Your task to perform on an android device: turn on airplane mode Image 0: 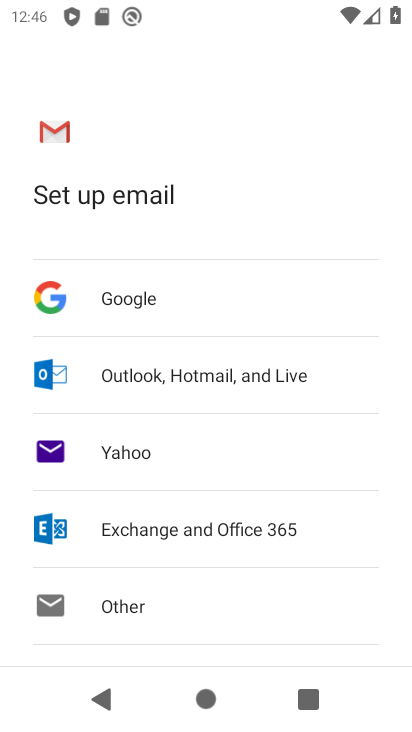
Step 0: press home button
Your task to perform on an android device: turn on airplane mode Image 1: 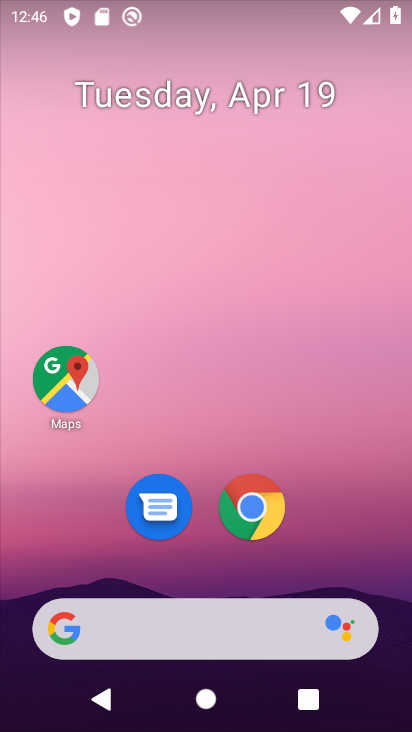
Step 1: drag from (219, 568) to (217, 54)
Your task to perform on an android device: turn on airplane mode Image 2: 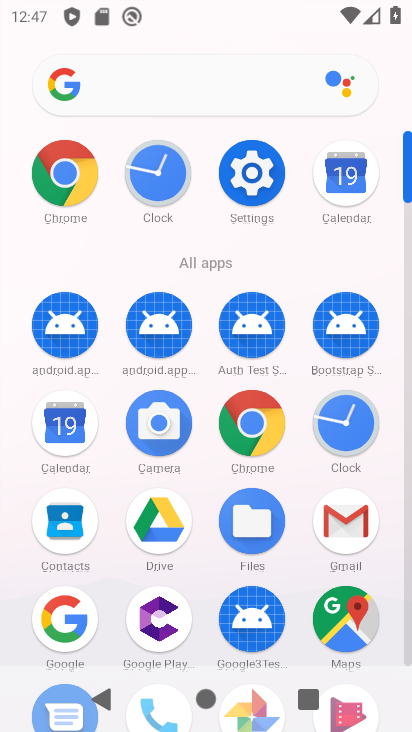
Step 2: drag from (249, 253) to (249, 483)
Your task to perform on an android device: turn on airplane mode Image 3: 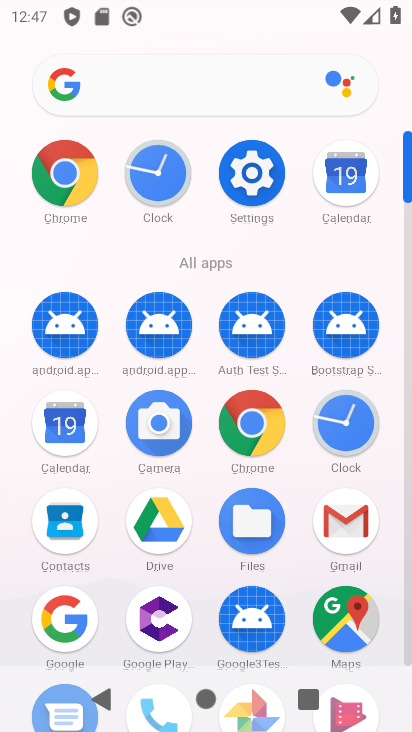
Step 3: drag from (227, 74) to (230, 500)
Your task to perform on an android device: turn on airplane mode Image 4: 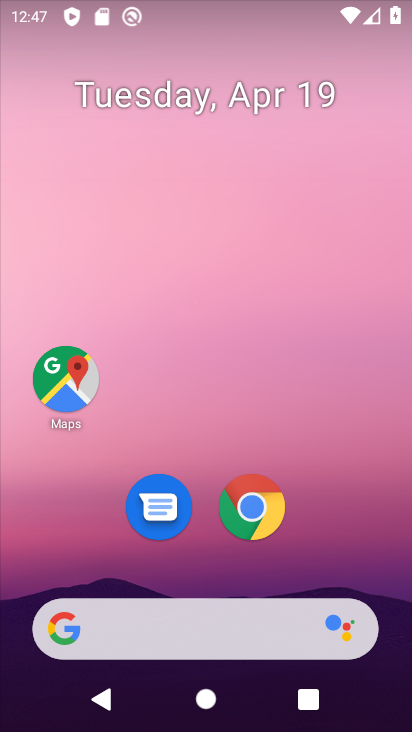
Step 4: drag from (232, 26) to (230, 494)
Your task to perform on an android device: turn on airplane mode Image 5: 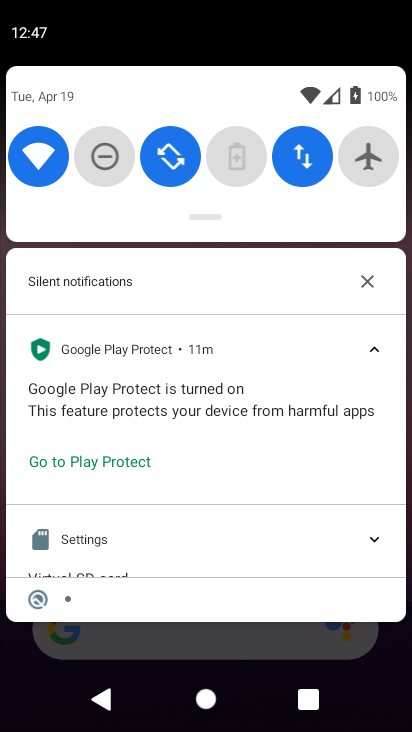
Step 5: click (366, 153)
Your task to perform on an android device: turn on airplane mode Image 6: 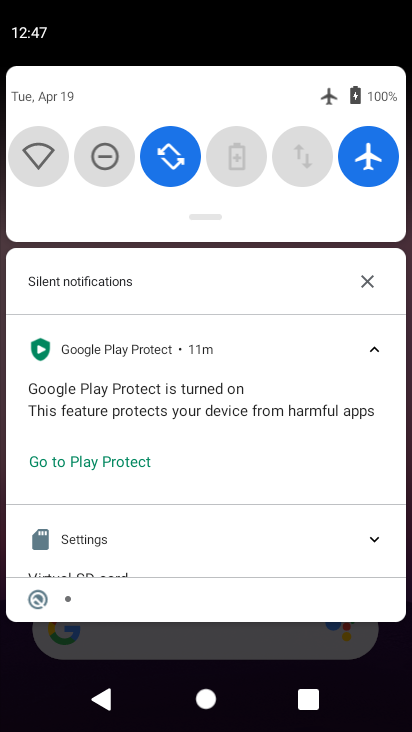
Step 6: task complete